Your task to perform on an android device: Open privacy settings Image 0: 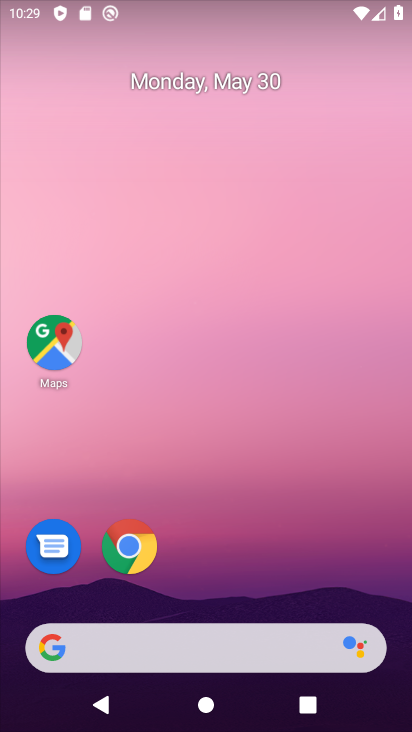
Step 0: drag from (211, 591) to (156, 18)
Your task to perform on an android device: Open privacy settings Image 1: 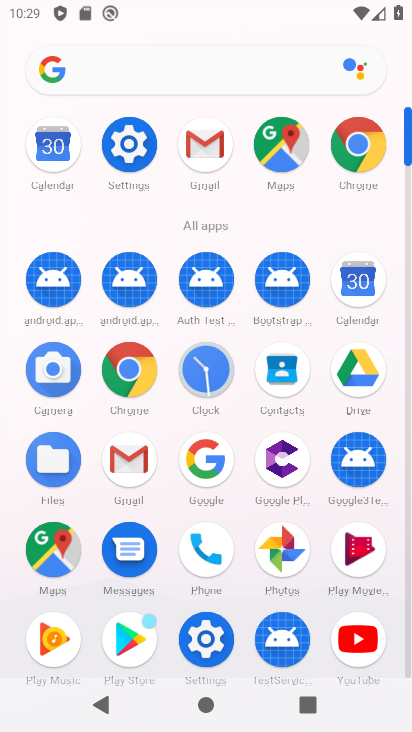
Step 1: click (127, 138)
Your task to perform on an android device: Open privacy settings Image 2: 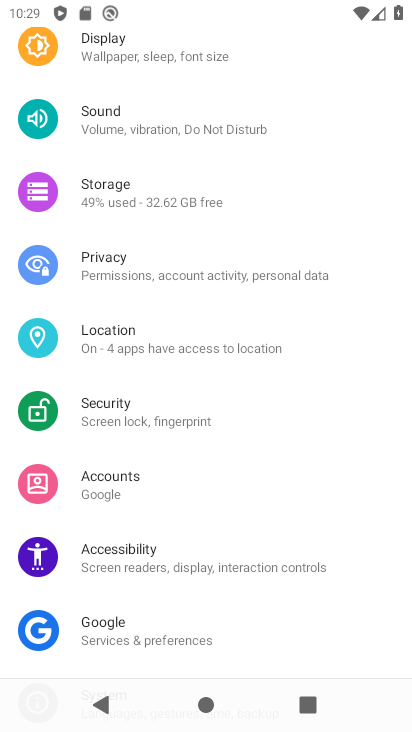
Step 2: click (141, 262)
Your task to perform on an android device: Open privacy settings Image 3: 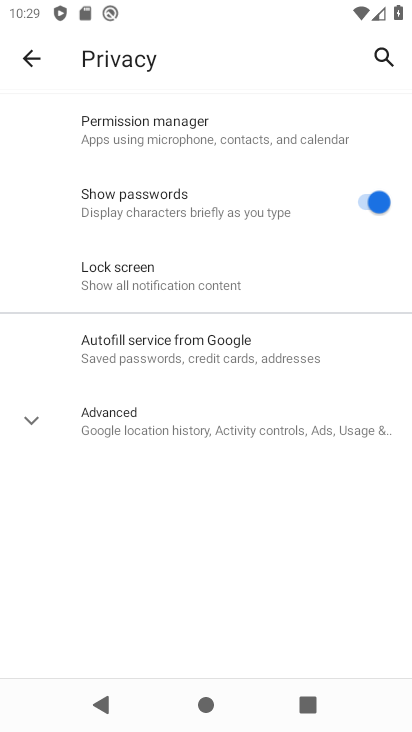
Step 3: click (33, 415)
Your task to perform on an android device: Open privacy settings Image 4: 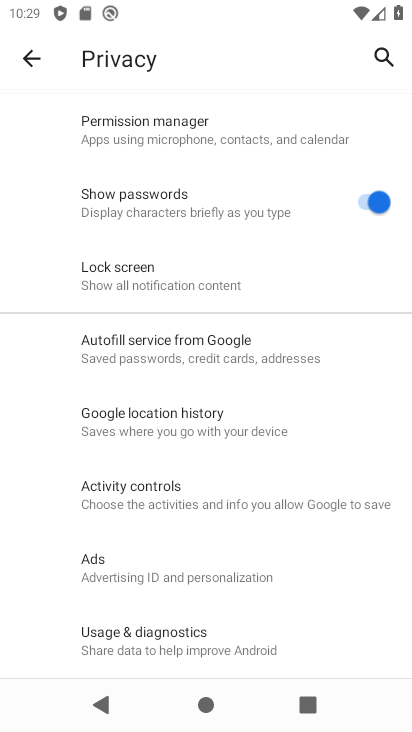
Step 4: task complete